Your task to perform on an android device: turn on data saver in the chrome app Image 0: 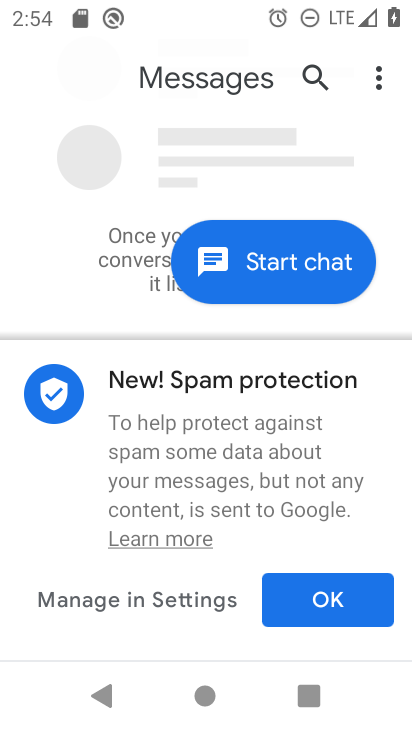
Step 0: press back button
Your task to perform on an android device: turn on data saver in the chrome app Image 1: 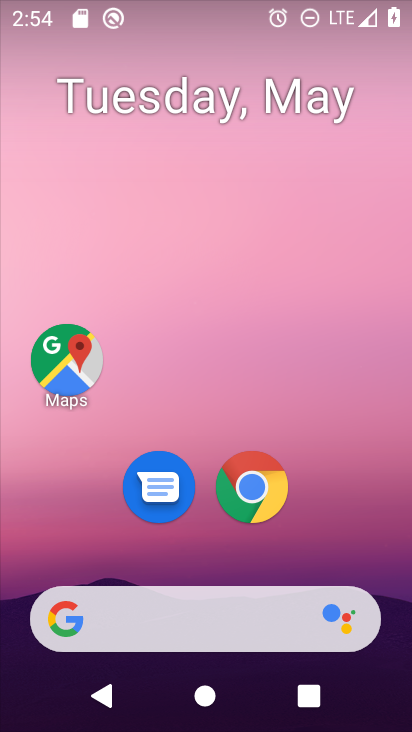
Step 1: click (265, 508)
Your task to perform on an android device: turn on data saver in the chrome app Image 2: 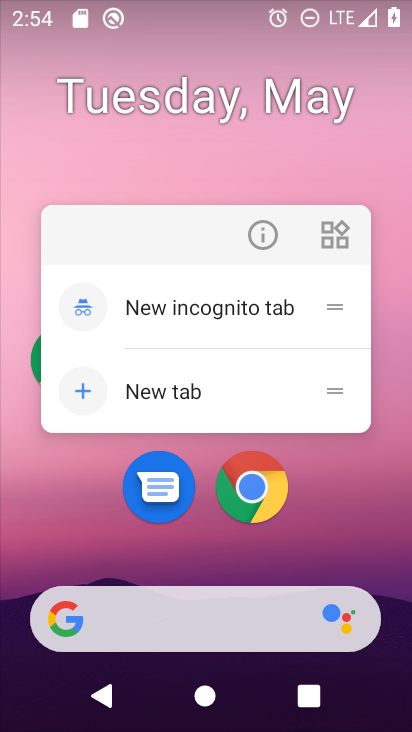
Step 2: click (258, 482)
Your task to perform on an android device: turn on data saver in the chrome app Image 3: 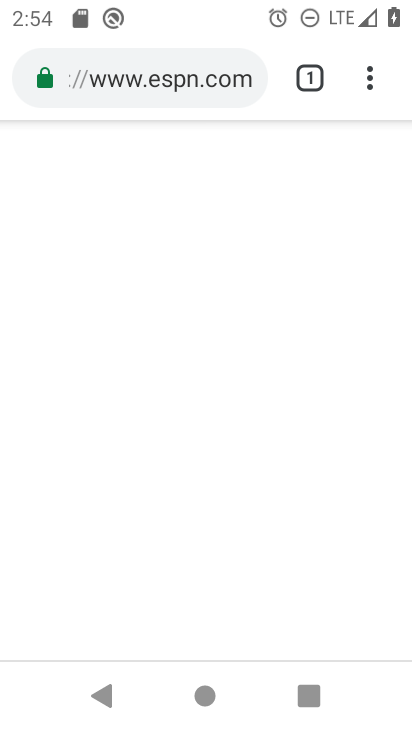
Step 3: click (375, 76)
Your task to perform on an android device: turn on data saver in the chrome app Image 4: 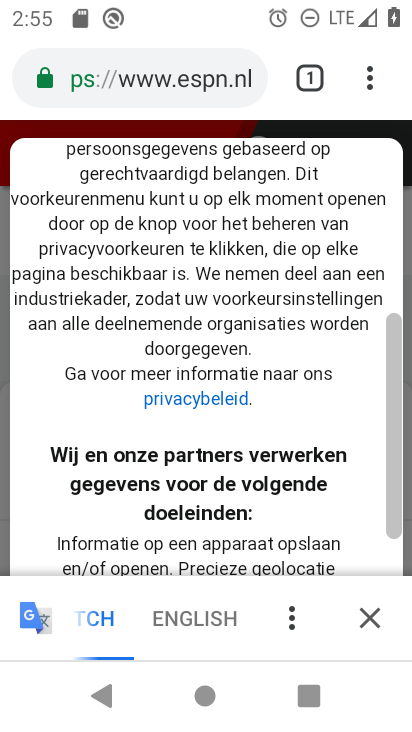
Step 4: click (354, 79)
Your task to perform on an android device: turn on data saver in the chrome app Image 5: 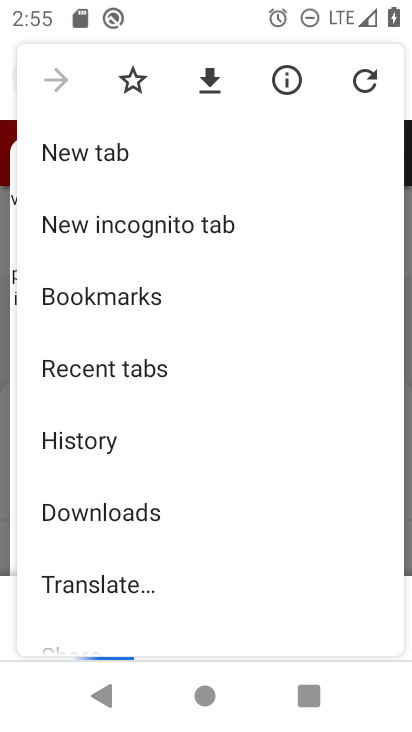
Step 5: drag from (125, 587) to (210, 134)
Your task to perform on an android device: turn on data saver in the chrome app Image 6: 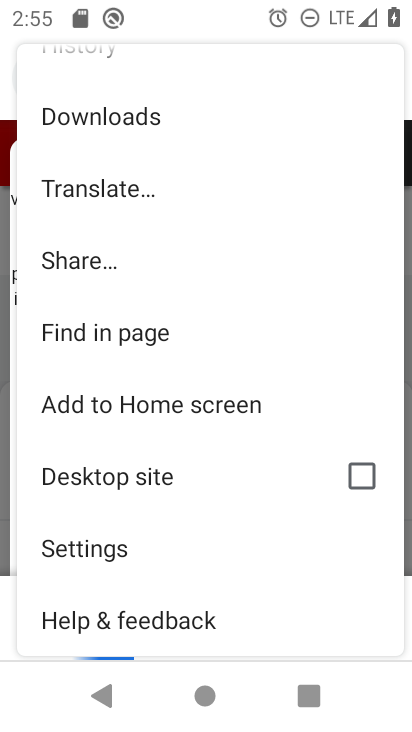
Step 6: click (102, 548)
Your task to perform on an android device: turn on data saver in the chrome app Image 7: 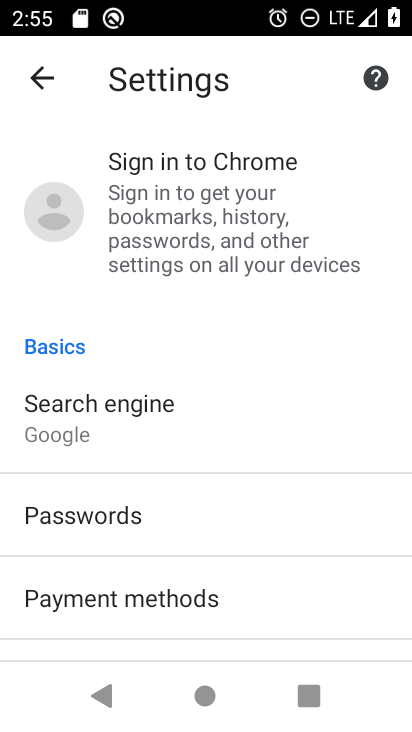
Step 7: drag from (119, 634) to (328, 135)
Your task to perform on an android device: turn on data saver in the chrome app Image 8: 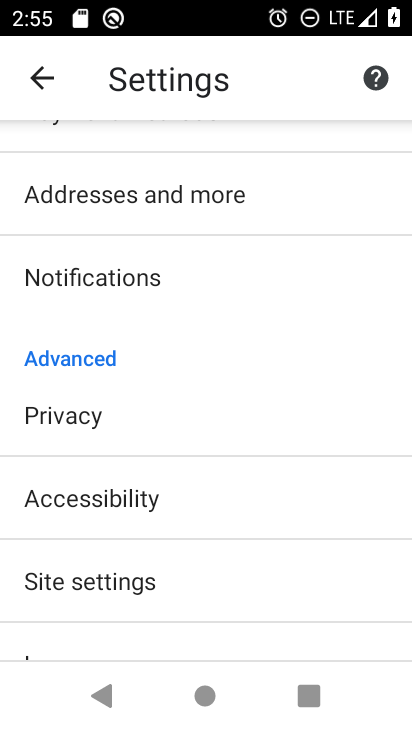
Step 8: drag from (132, 566) to (240, 228)
Your task to perform on an android device: turn on data saver in the chrome app Image 9: 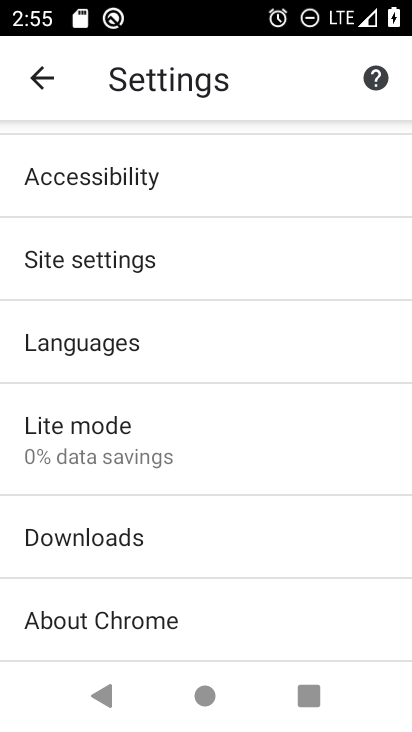
Step 9: click (74, 444)
Your task to perform on an android device: turn on data saver in the chrome app Image 10: 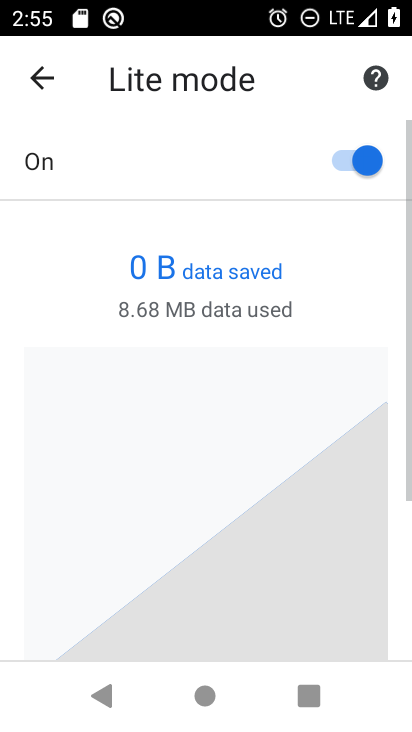
Step 10: task complete